Your task to perform on an android device: Open calendar and show me the fourth week of next month Image 0: 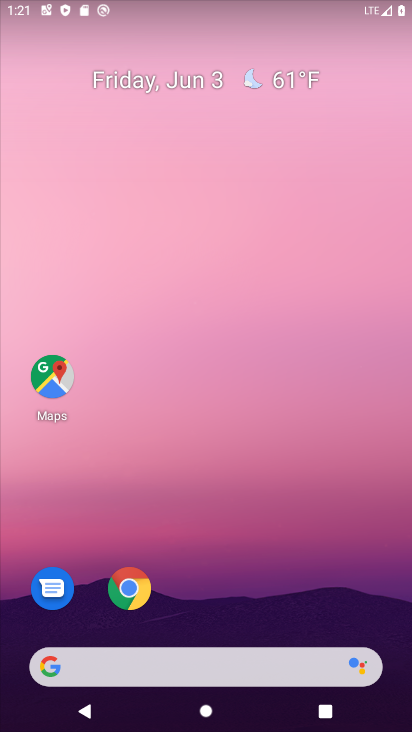
Step 0: click (263, 189)
Your task to perform on an android device: Open calendar and show me the fourth week of next month Image 1: 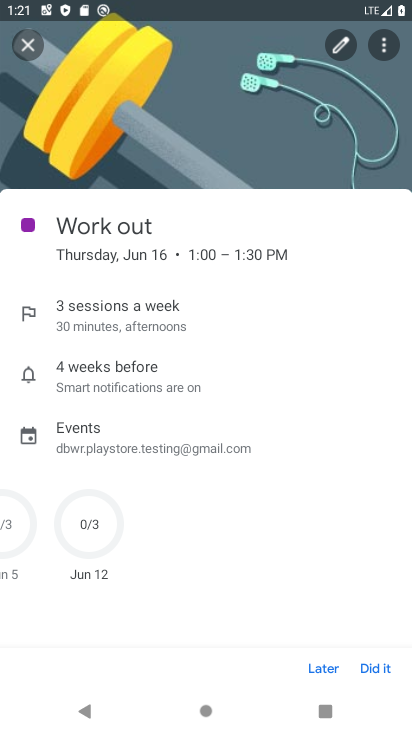
Step 1: press back button
Your task to perform on an android device: Open calendar and show me the fourth week of next month Image 2: 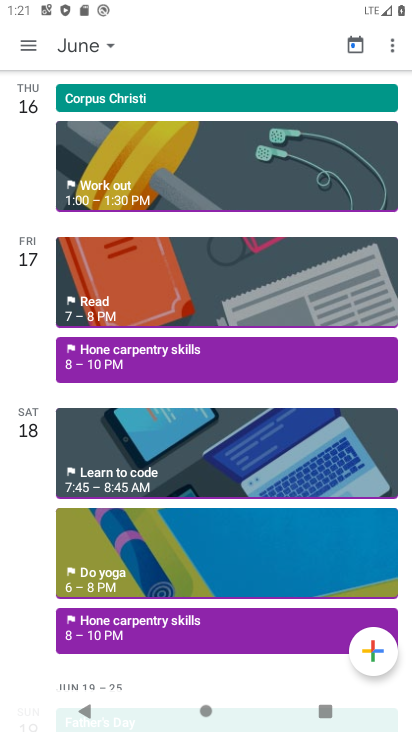
Step 2: click (106, 44)
Your task to perform on an android device: Open calendar and show me the fourth week of next month Image 3: 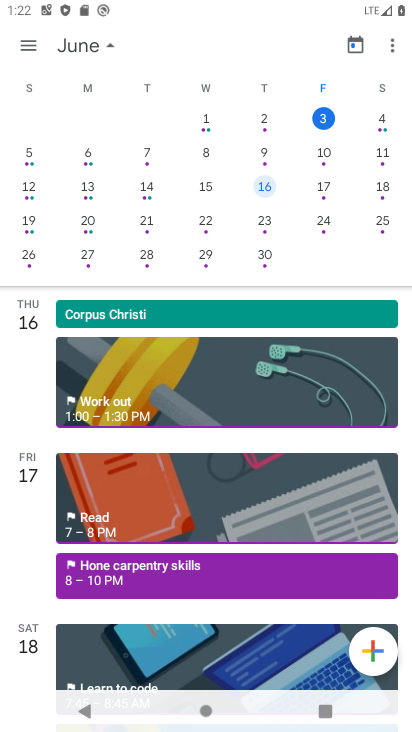
Step 3: drag from (285, 216) to (0, 242)
Your task to perform on an android device: Open calendar and show me the fourth week of next month Image 4: 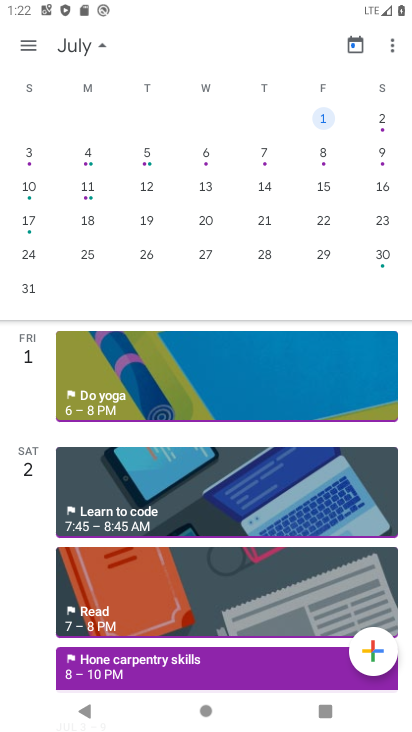
Step 4: click (31, 231)
Your task to perform on an android device: Open calendar and show me the fourth week of next month Image 5: 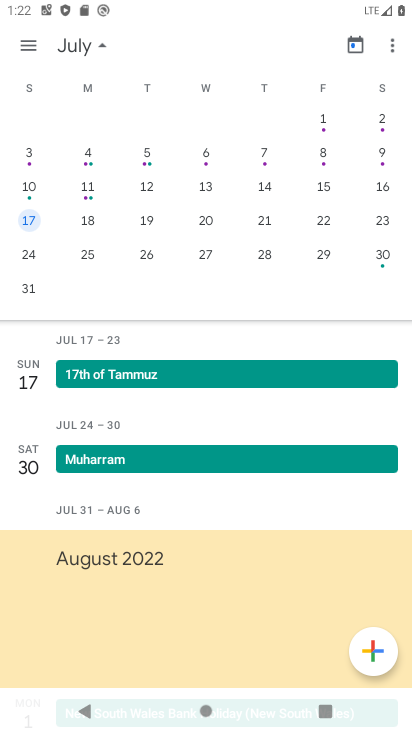
Step 5: click (75, 51)
Your task to perform on an android device: Open calendar and show me the fourth week of next month Image 6: 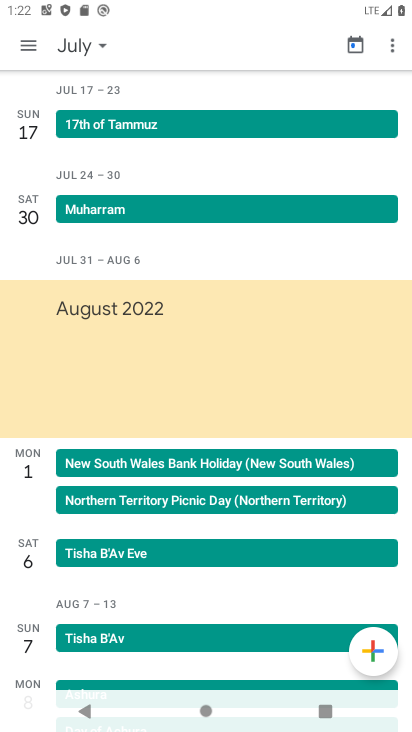
Step 6: click (23, 48)
Your task to perform on an android device: Open calendar and show me the fourth week of next month Image 7: 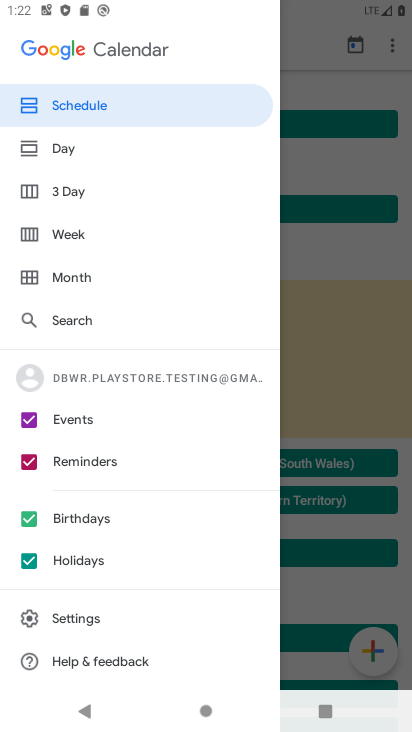
Step 7: click (108, 248)
Your task to perform on an android device: Open calendar and show me the fourth week of next month Image 8: 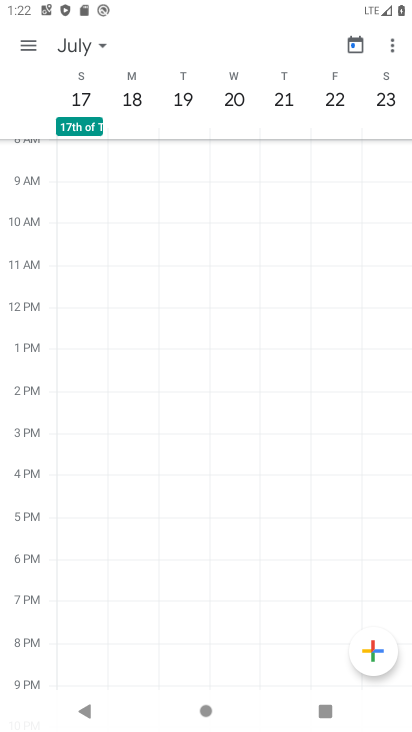
Step 8: task complete